Your task to perform on an android device: Check the news Image 0: 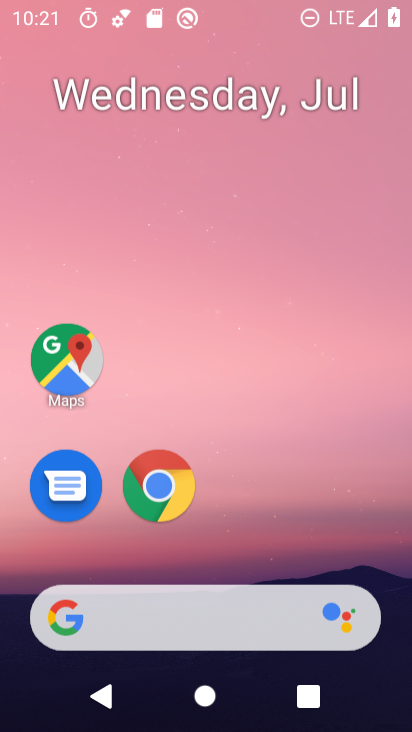
Step 0: click (356, 74)
Your task to perform on an android device: Check the news Image 1: 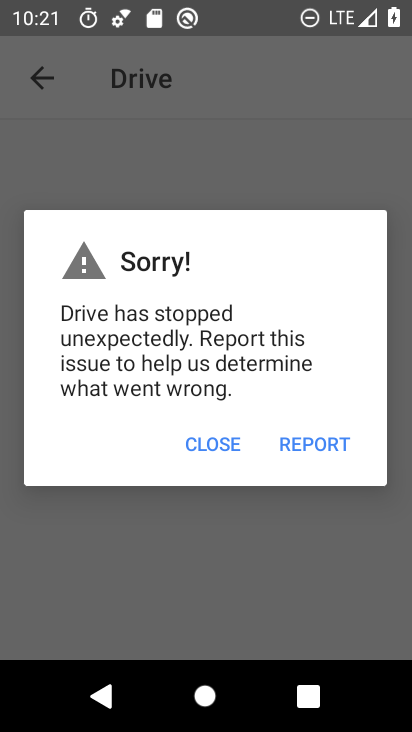
Step 1: task complete